Your task to perform on an android device: Clear the cart on amazon.com. Add "razer blade" to the cart on amazon.com, then select checkout. Image 0: 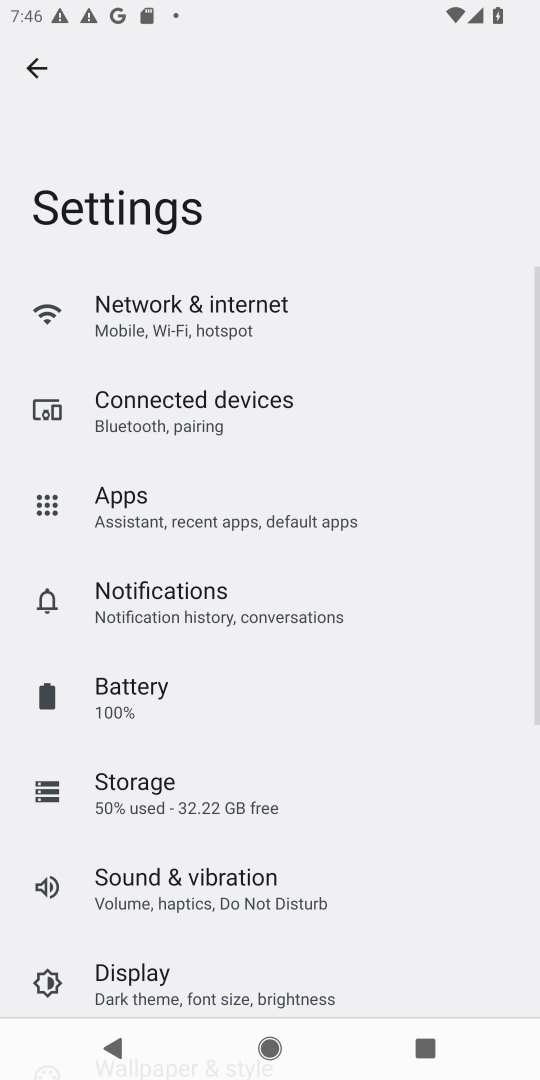
Step 0: press home button
Your task to perform on an android device: Clear the cart on amazon.com. Add "razer blade" to the cart on amazon.com, then select checkout. Image 1: 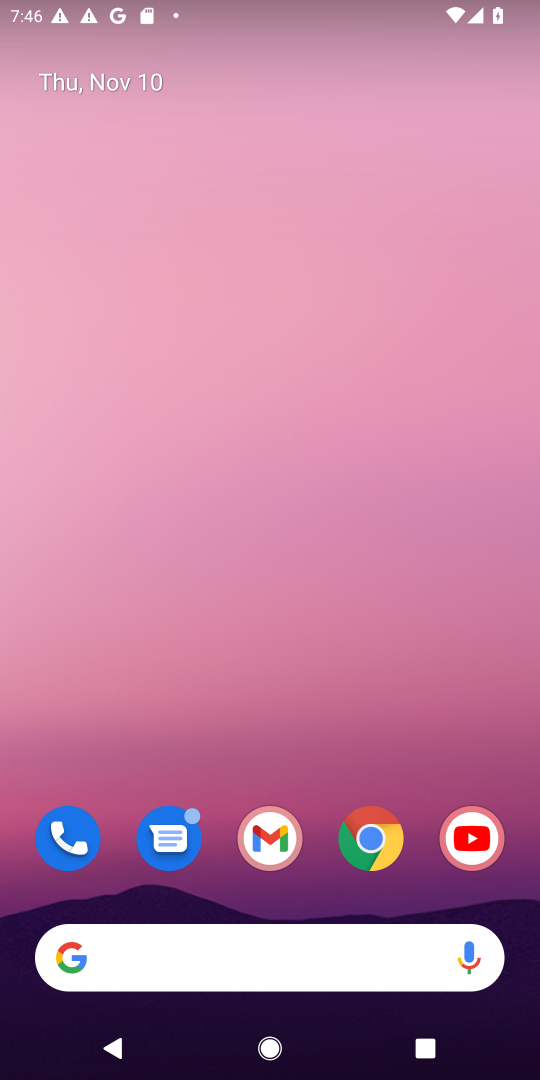
Step 1: drag from (333, 904) to (292, 148)
Your task to perform on an android device: Clear the cart on amazon.com. Add "razer blade" to the cart on amazon.com, then select checkout. Image 2: 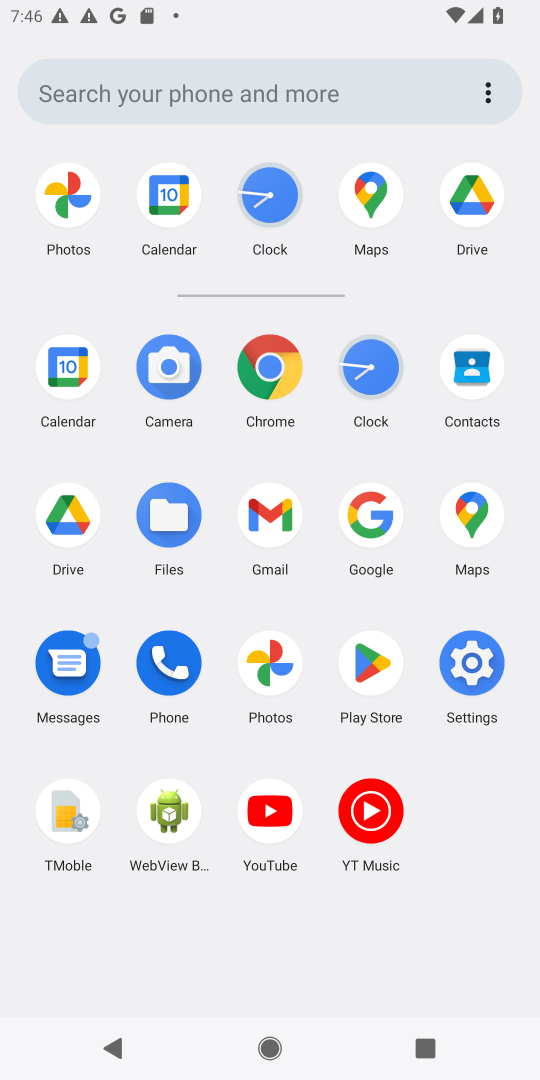
Step 2: click (272, 365)
Your task to perform on an android device: Clear the cart on amazon.com. Add "razer blade" to the cart on amazon.com, then select checkout. Image 3: 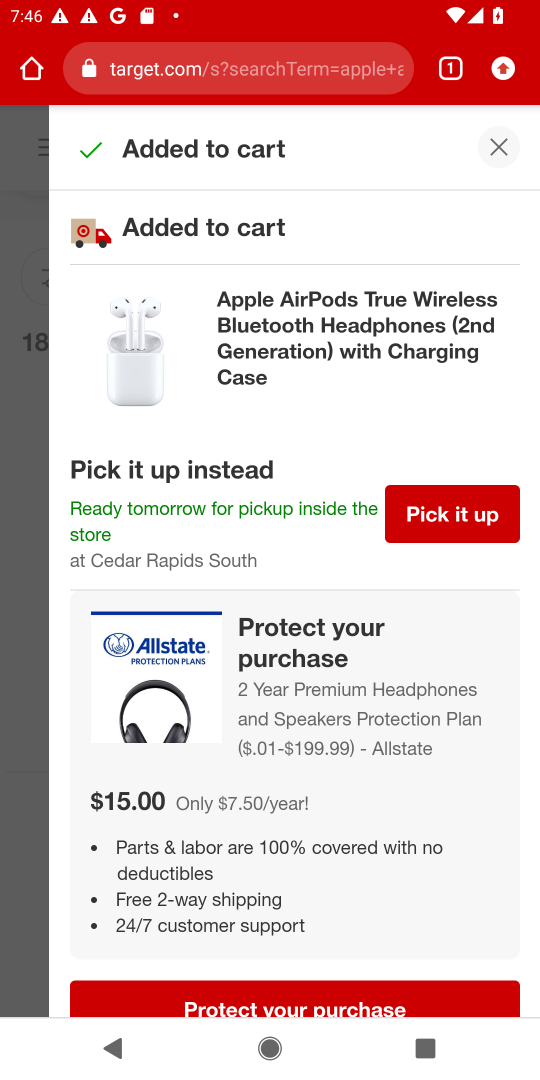
Step 3: click (281, 70)
Your task to perform on an android device: Clear the cart on amazon.com. Add "razer blade" to the cart on amazon.com, then select checkout. Image 4: 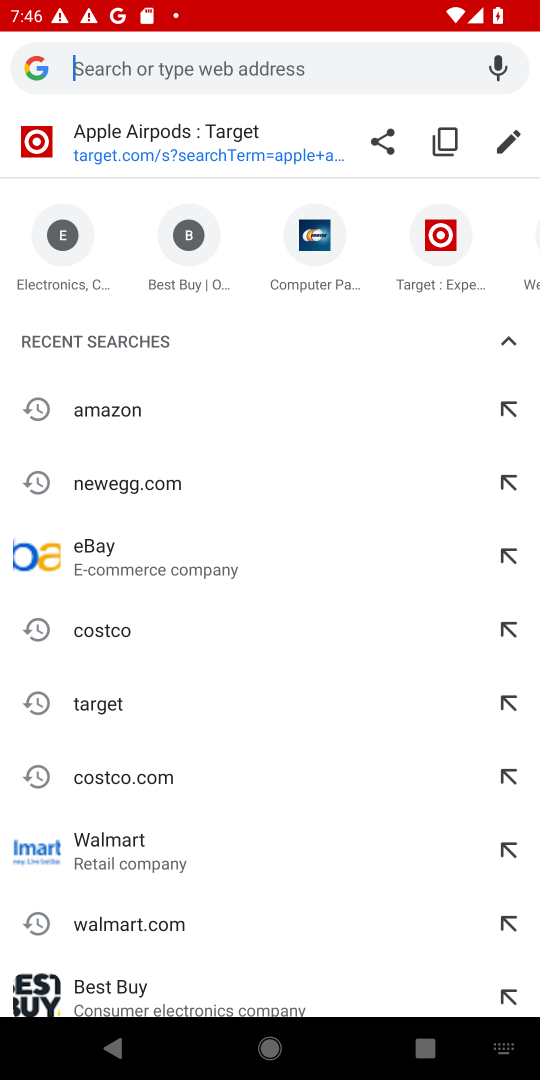
Step 4: type "amazon.com"
Your task to perform on an android device: Clear the cart on amazon.com. Add "razer blade" to the cart on amazon.com, then select checkout. Image 5: 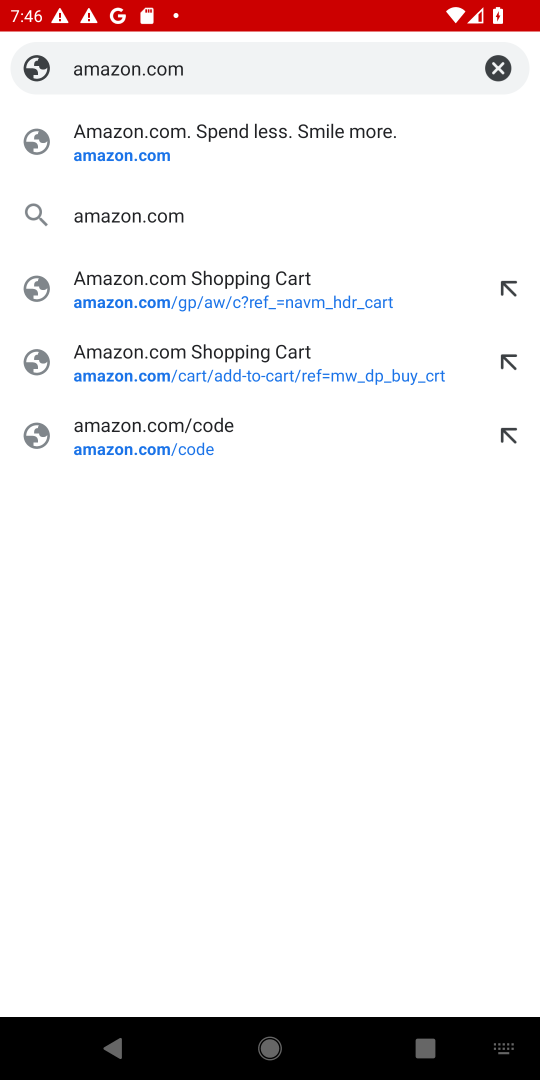
Step 5: press enter
Your task to perform on an android device: Clear the cart on amazon.com. Add "razer blade" to the cart on amazon.com, then select checkout. Image 6: 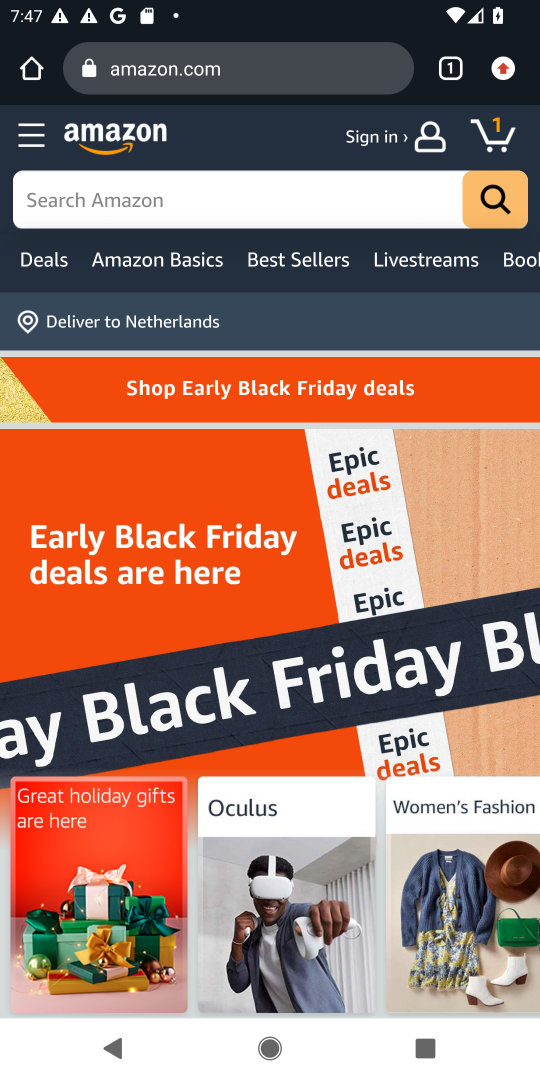
Step 6: click (502, 137)
Your task to perform on an android device: Clear the cart on amazon.com. Add "razer blade" to the cart on amazon.com, then select checkout. Image 7: 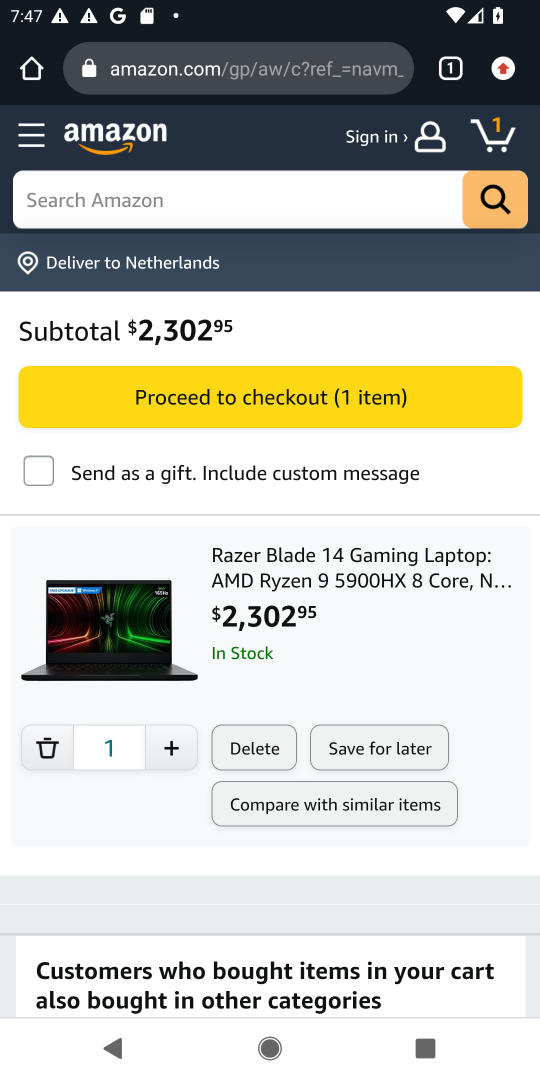
Step 7: click (47, 759)
Your task to perform on an android device: Clear the cart on amazon.com. Add "razer blade" to the cart on amazon.com, then select checkout. Image 8: 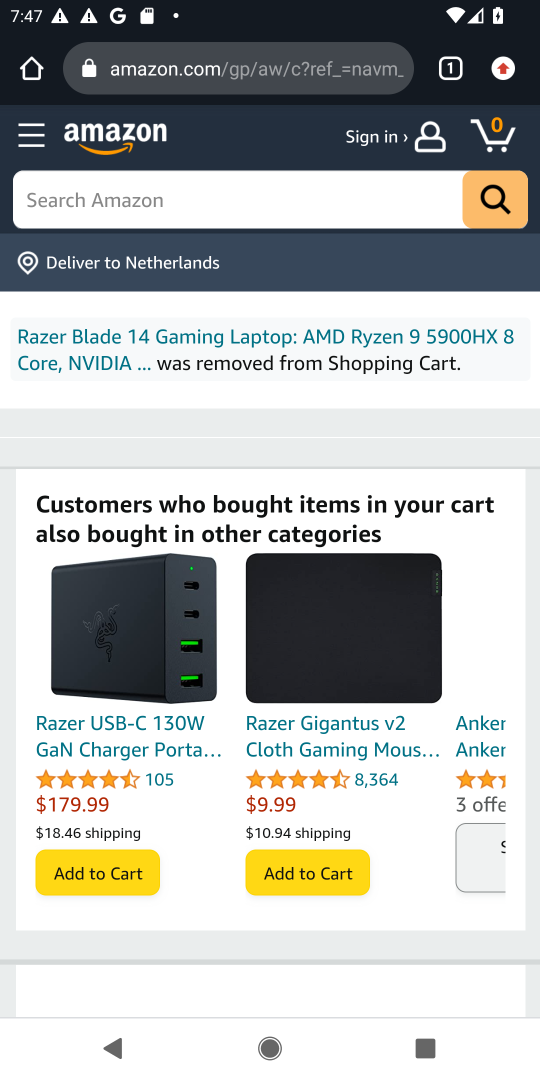
Step 8: click (295, 206)
Your task to perform on an android device: Clear the cart on amazon.com. Add "razer blade" to the cart on amazon.com, then select checkout. Image 9: 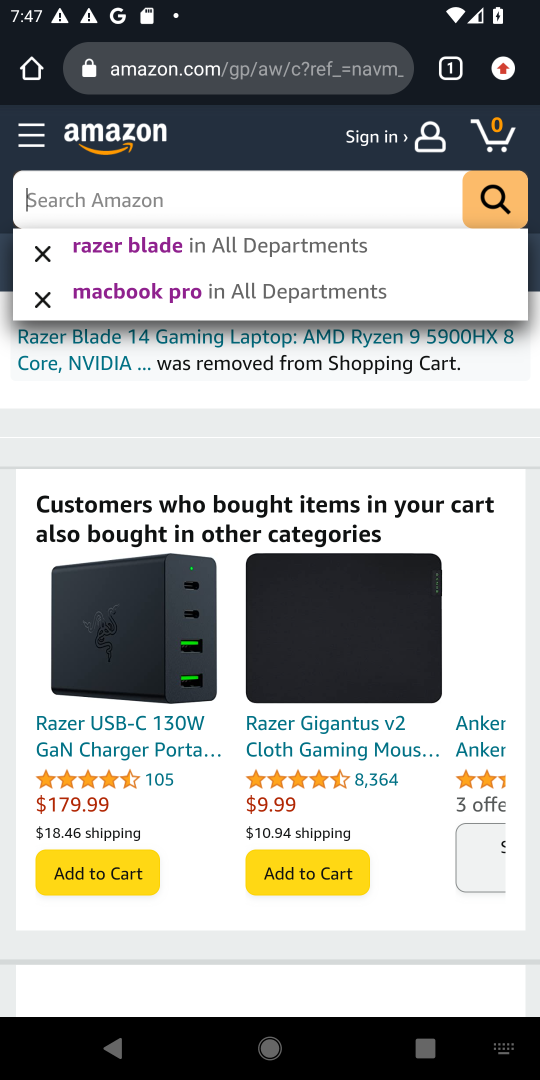
Step 9: type "razer blade"
Your task to perform on an android device: Clear the cart on amazon.com. Add "razer blade" to the cart on amazon.com, then select checkout. Image 10: 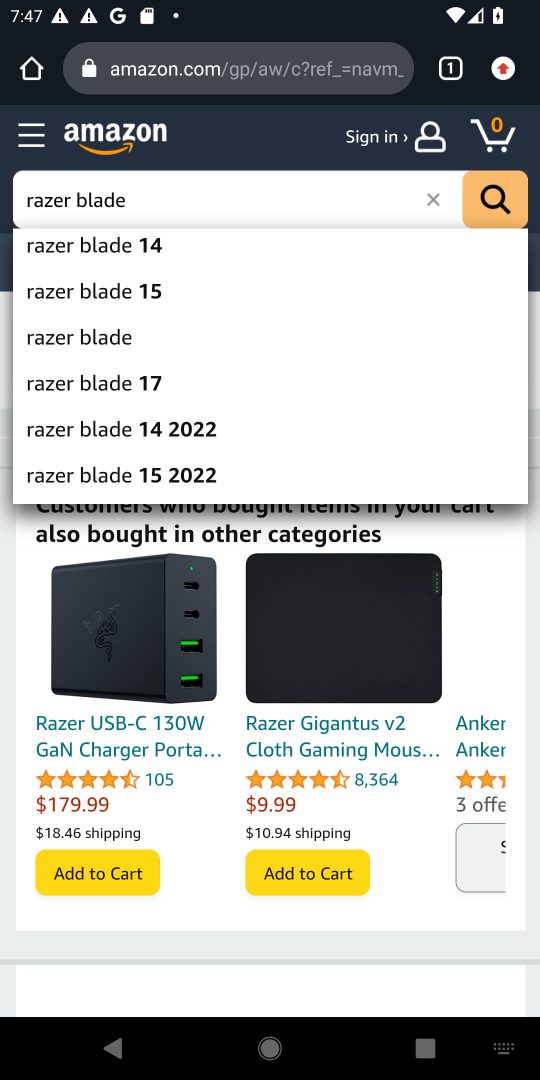
Step 10: press enter
Your task to perform on an android device: Clear the cart on amazon.com. Add "razer blade" to the cart on amazon.com, then select checkout. Image 11: 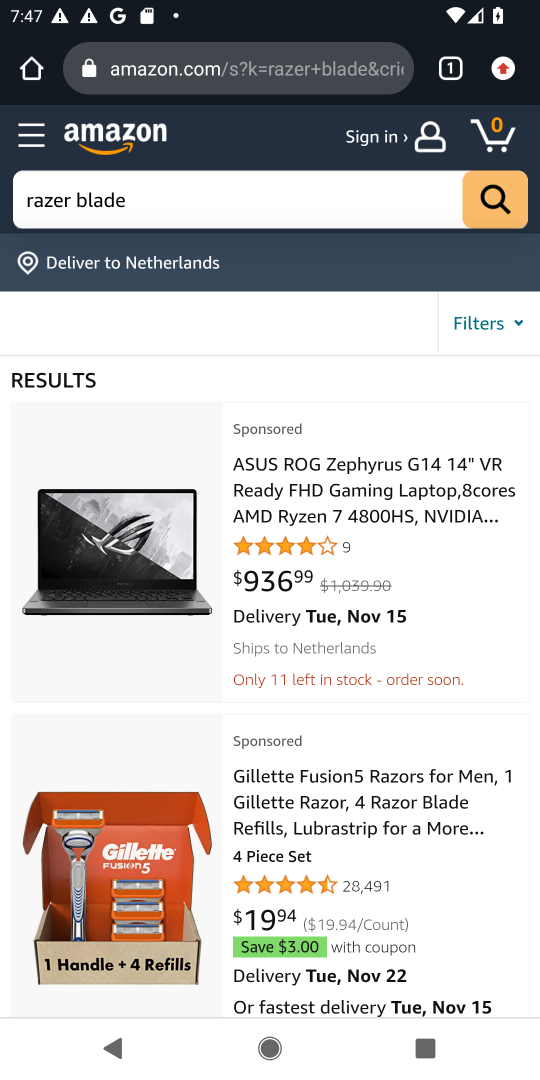
Step 11: drag from (394, 869) to (325, 100)
Your task to perform on an android device: Clear the cart on amazon.com. Add "razer blade" to the cart on amazon.com, then select checkout. Image 12: 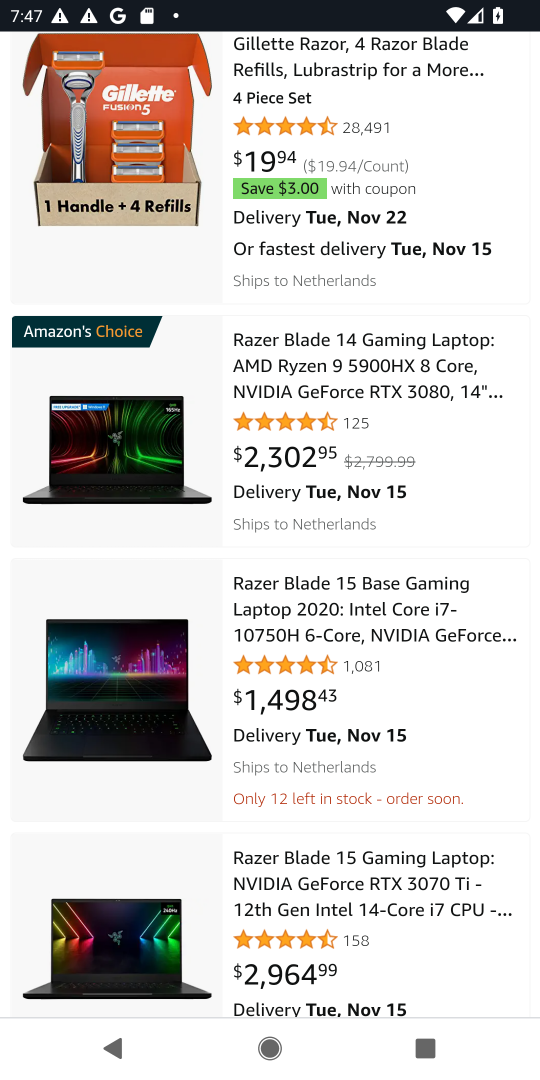
Step 12: click (342, 373)
Your task to perform on an android device: Clear the cart on amazon.com. Add "razer blade" to the cart on amazon.com, then select checkout. Image 13: 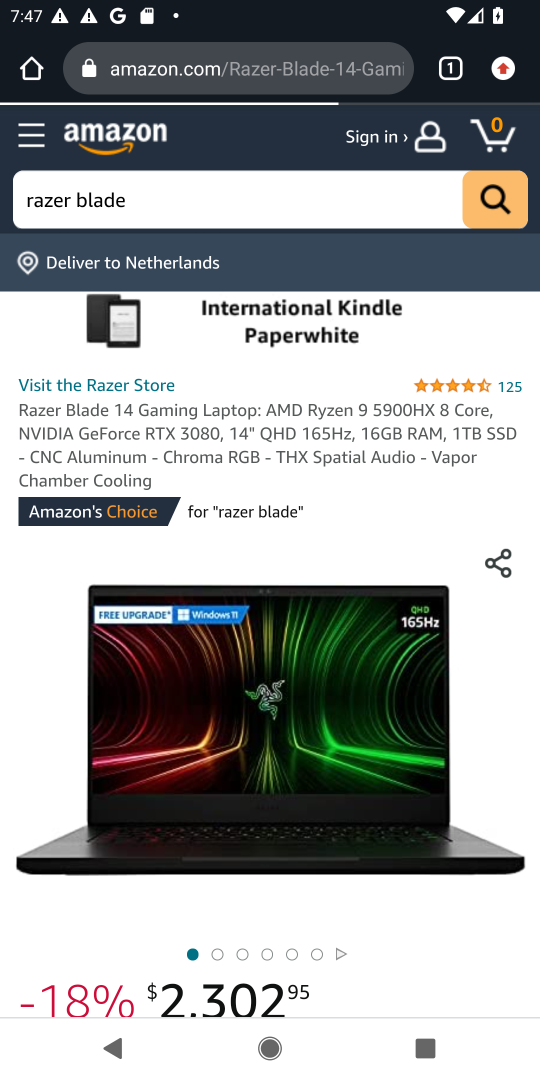
Step 13: drag from (382, 884) to (353, 176)
Your task to perform on an android device: Clear the cart on amazon.com. Add "razer blade" to the cart on amazon.com, then select checkout. Image 14: 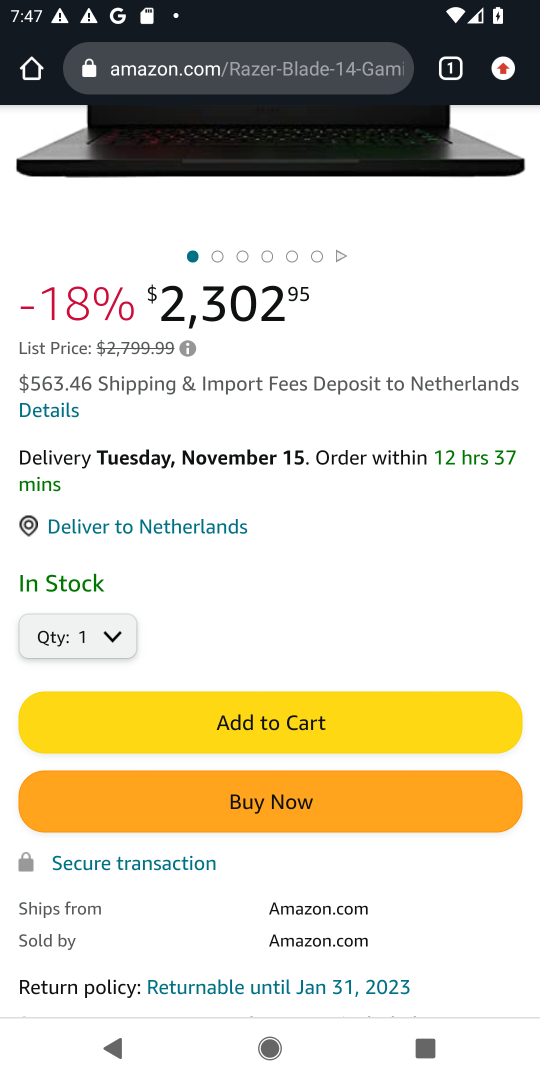
Step 14: click (372, 726)
Your task to perform on an android device: Clear the cart on amazon.com. Add "razer blade" to the cart on amazon.com, then select checkout. Image 15: 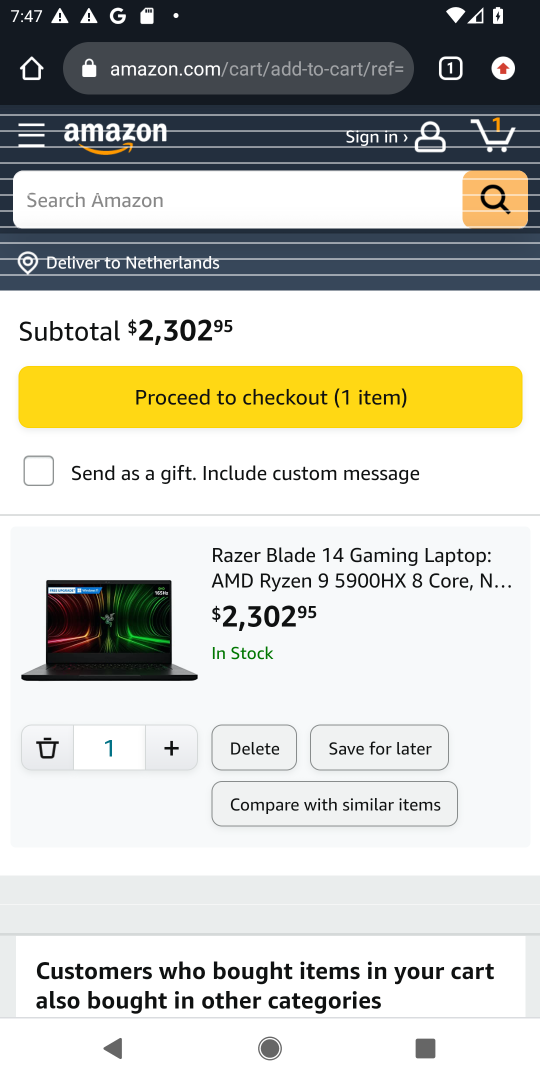
Step 15: click (295, 400)
Your task to perform on an android device: Clear the cart on amazon.com. Add "razer blade" to the cart on amazon.com, then select checkout. Image 16: 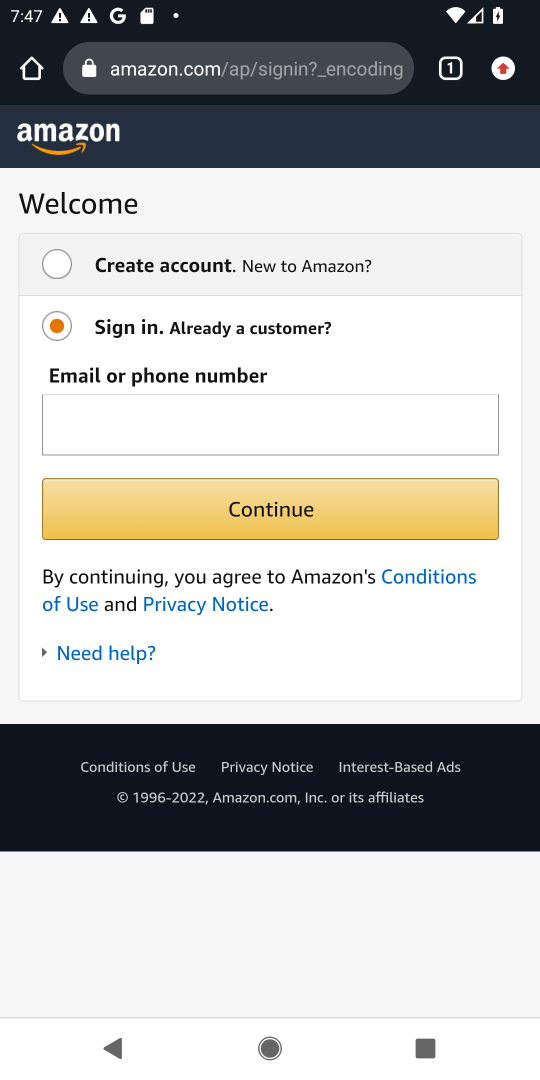
Step 16: task complete